Your task to perform on an android device: Turn on the flashlight Image 0: 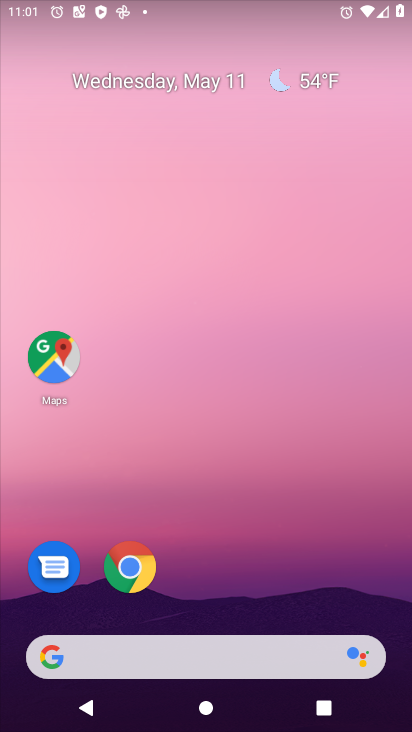
Step 0: drag from (233, 582) to (250, 6)
Your task to perform on an android device: Turn on the flashlight Image 1: 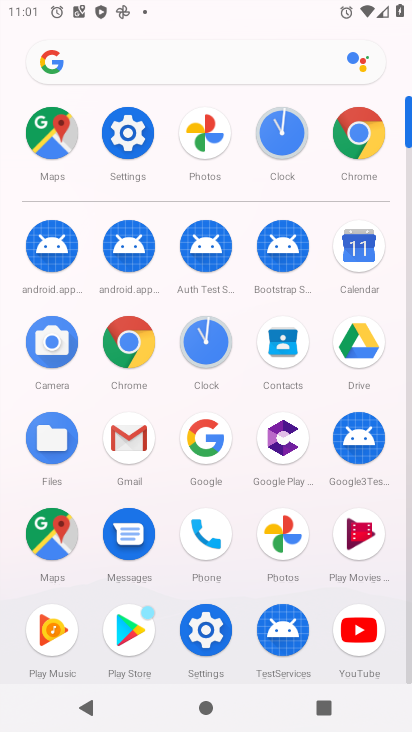
Step 1: click (124, 160)
Your task to perform on an android device: Turn on the flashlight Image 2: 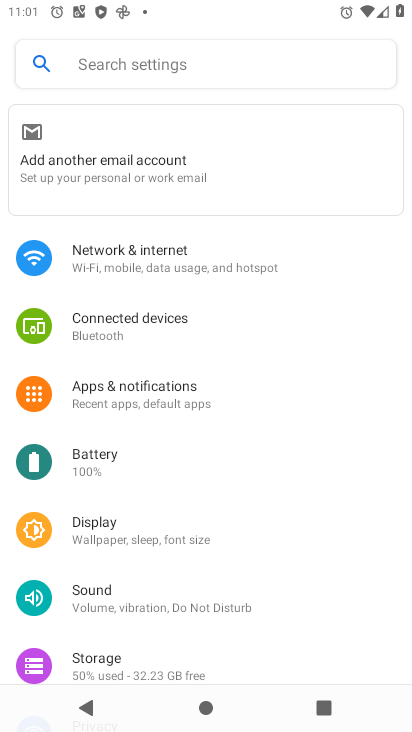
Step 2: click (173, 67)
Your task to perform on an android device: Turn on the flashlight Image 3: 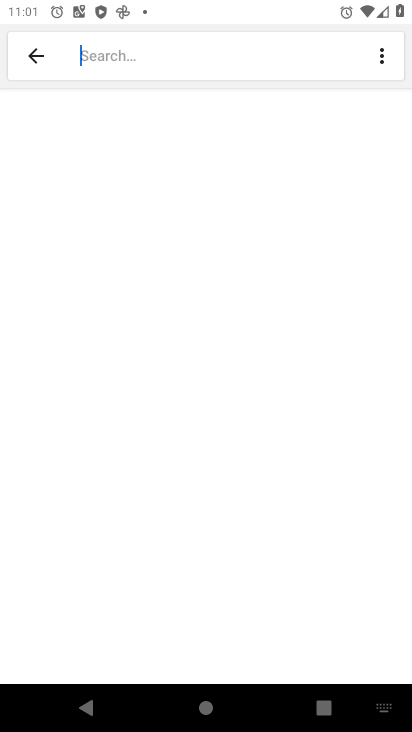
Step 3: type "flashlight"
Your task to perform on an android device: Turn on the flashlight Image 4: 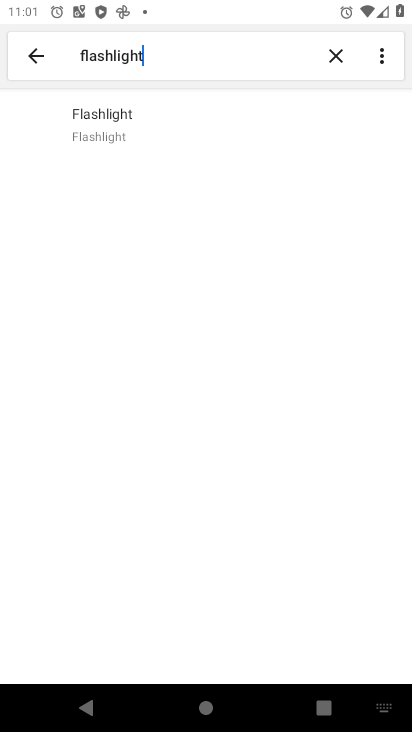
Step 4: click (124, 125)
Your task to perform on an android device: Turn on the flashlight Image 5: 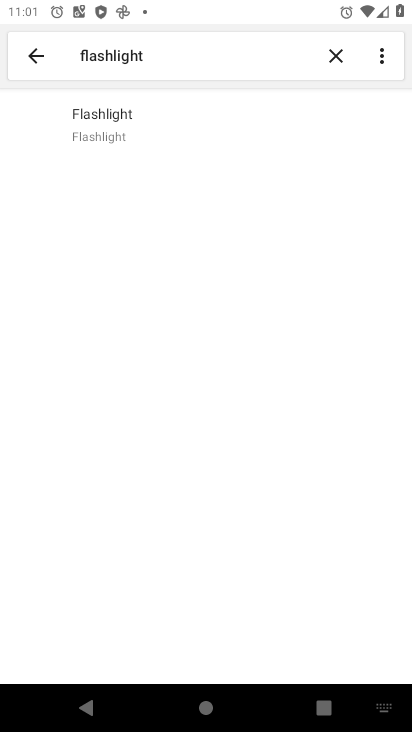
Step 5: click (115, 127)
Your task to perform on an android device: Turn on the flashlight Image 6: 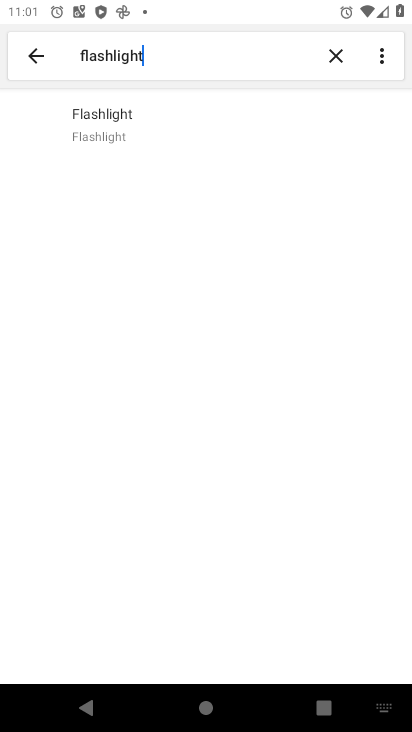
Step 6: task complete